Your task to perform on an android device: Open eBay Image 0: 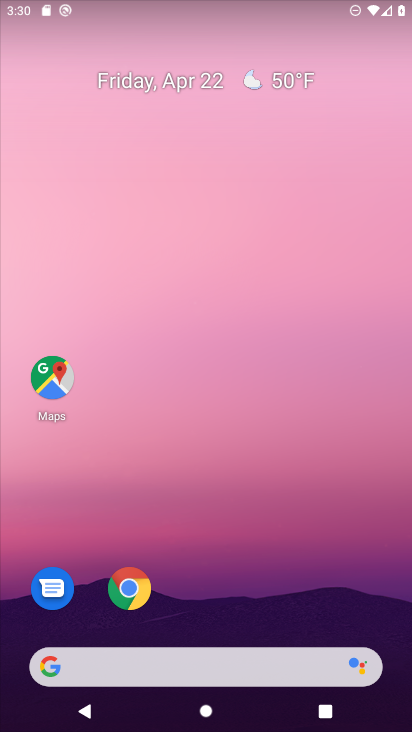
Step 0: click (135, 596)
Your task to perform on an android device: Open eBay Image 1: 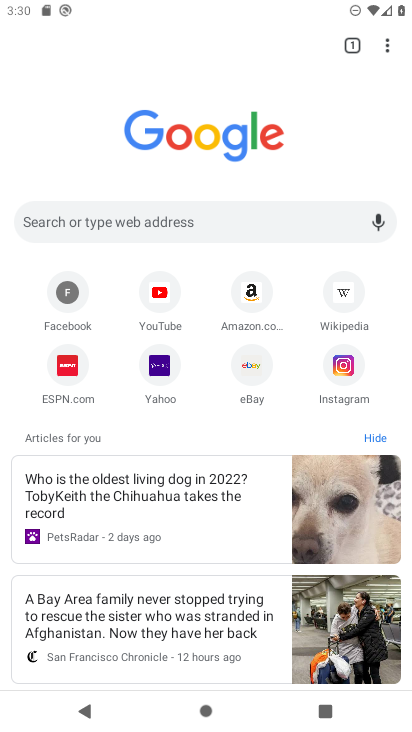
Step 1: click (251, 357)
Your task to perform on an android device: Open eBay Image 2: 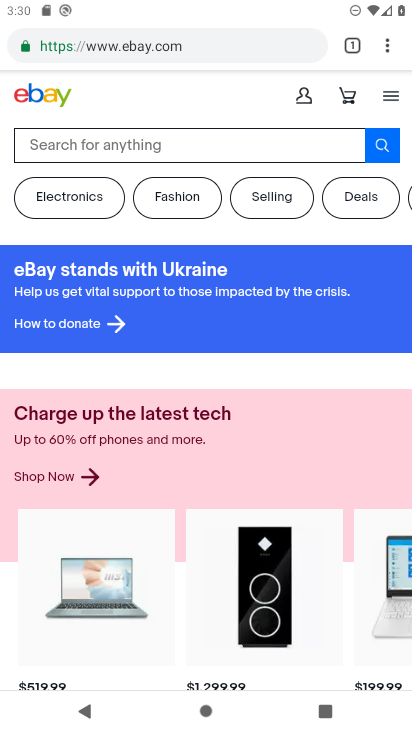
Step 2: task complete